Your task to perform on an android device: Go to display settings Image 0: 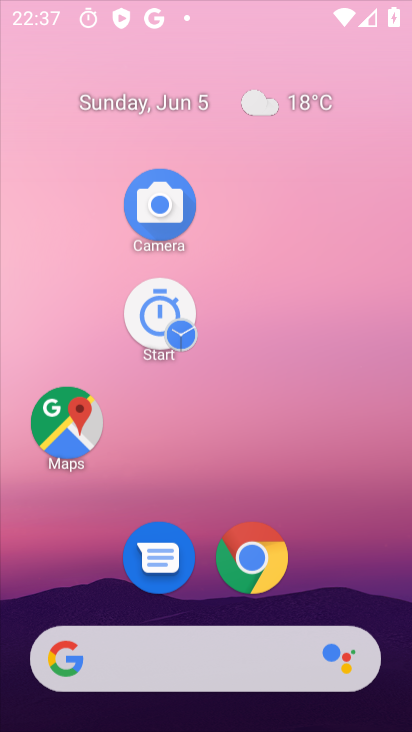
Step 0: drag from (270, 685) to (231, 96)
Your task to perform on an android device: Go to display settings Image 1: 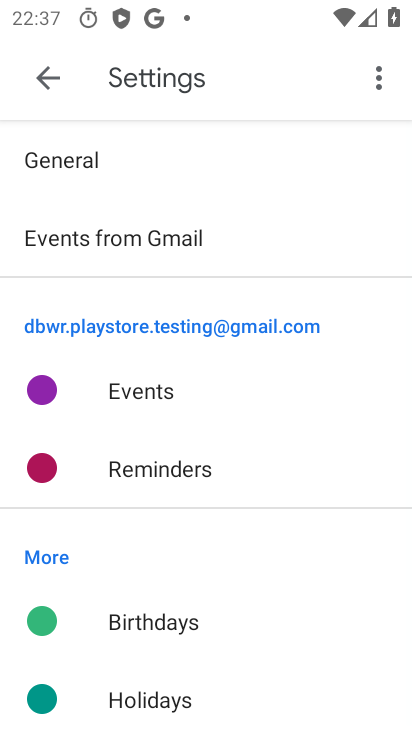
Step 1: click (43, 82)
Your task to perform on an android device: Go to display settings Image 2: 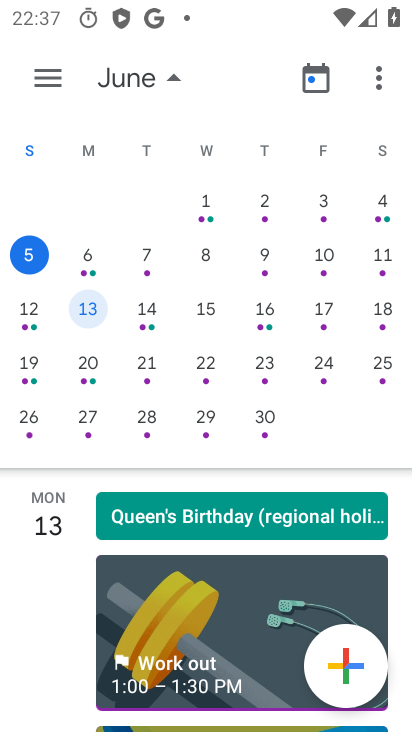
Step 2: press back button
Your task to perform on an android device: Go to display settings Image 3: 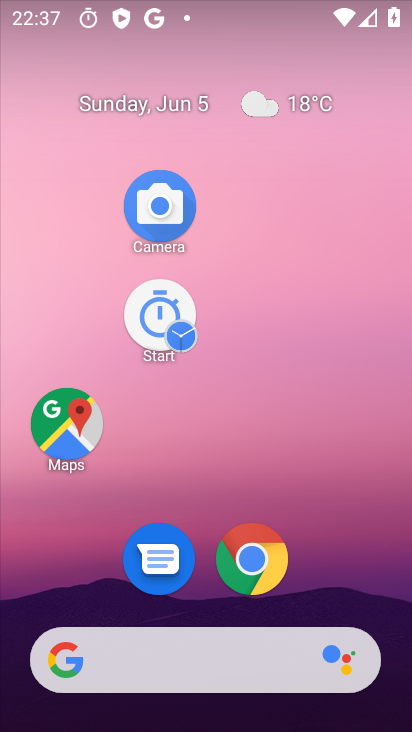
Step 3: drag from (199, 677) to (164, 35)
Your task to perform on an android device: Go to display settings Image 4: 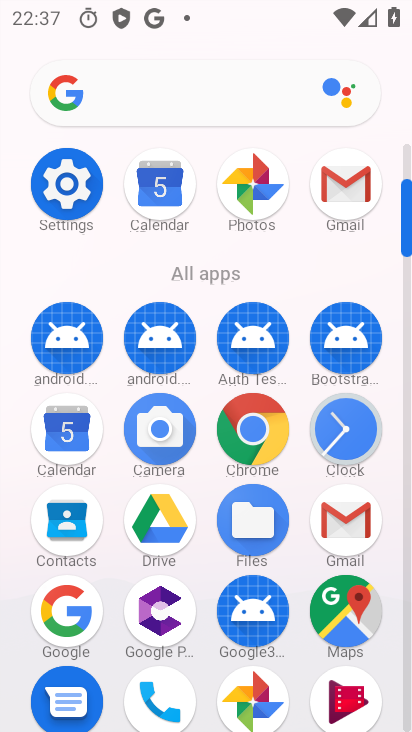
Step 4: click (54, 187)
Your task to perform on an android device: Go to display settings Image 5: 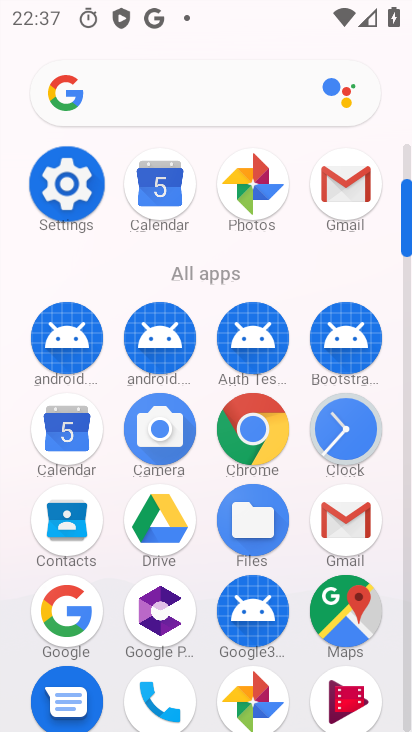
Step 5: click (54, 190)
Your task to perform on an android device: Go to display settings Image 6: 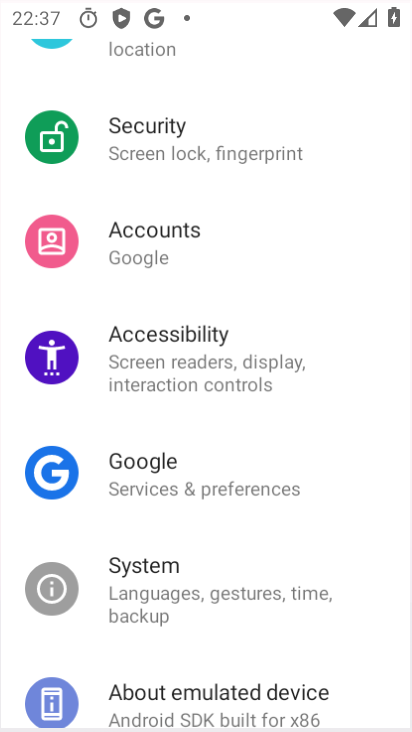
Step 6: click (62, 192)
Your task to perform on an android device: Go to display settings Image 7: 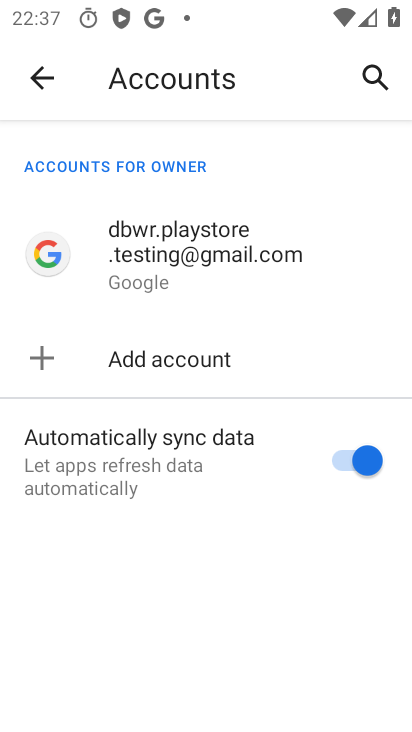
Step 7: click (41, 75)
Your task to perform on an android device: Go to display settings Image 8: 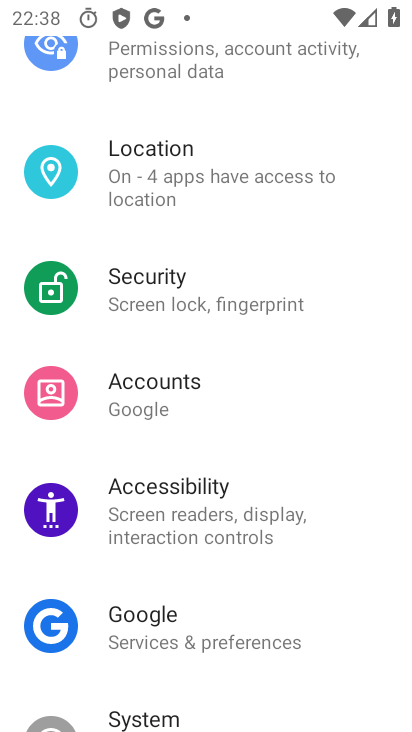
Step 8: drag from (168, 182) to (167, 427)
Your task to perform on an android device: Go to display settings Image 9: 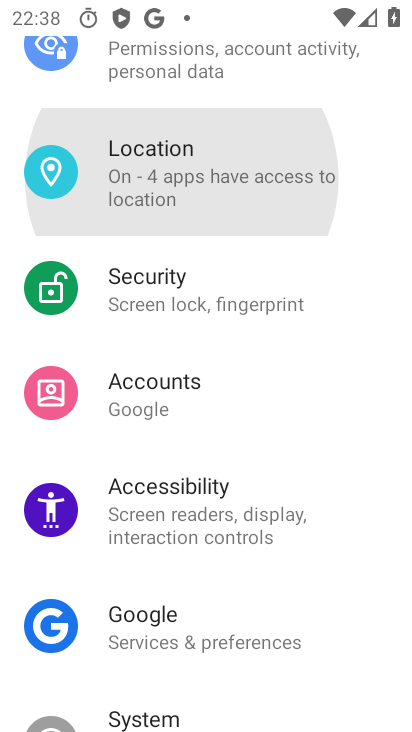
Step 9: drag from (114, 103) to (127, 375)
Your task to perform on an android device: Go to display settings Image 10: 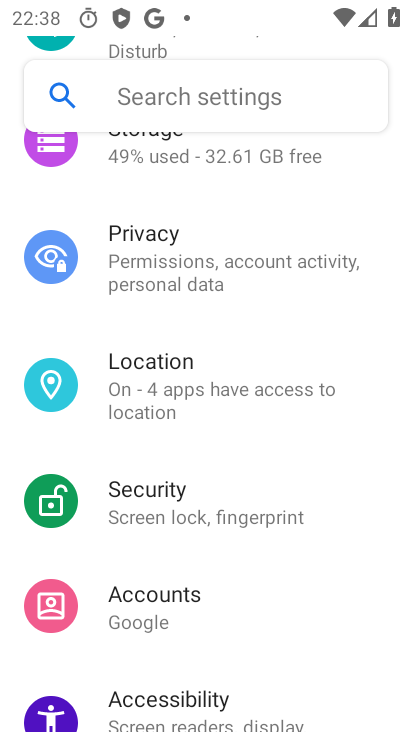
Step 10: drag from (160, 247) to (122, 529)
Your task to perform on an android device: Go to display settings Image 11: 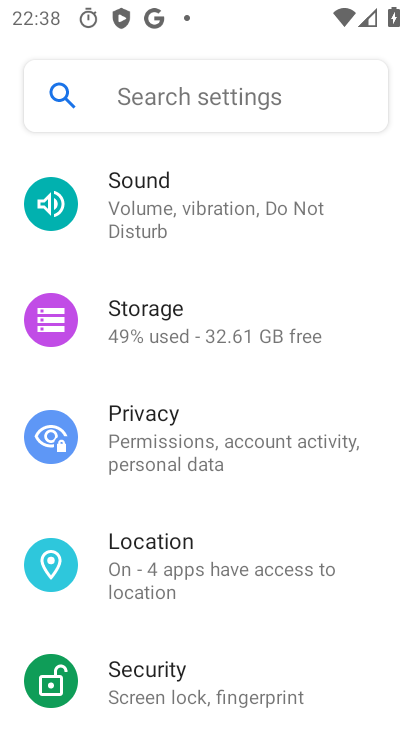
Step 11: drag from (164, 370) to (142, 638)
Your task to perform on an android device: Go to display settings Image 12: 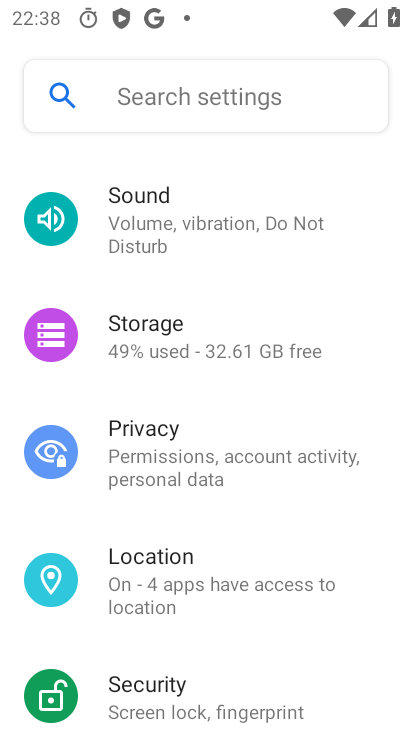
Step 12: drag from (180, 333) to (167, 595)
Your task to perform on an android device: Go to display settings Image 13: 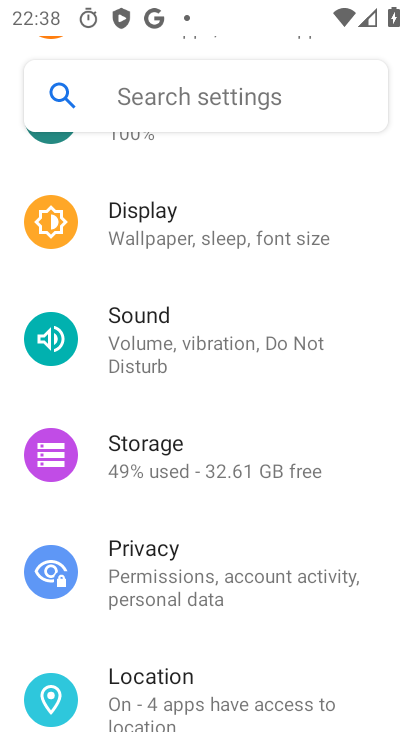
Step 13: drag from (207, 432) to (215, 484)
Your task to perform on an android device: Go to display settings Image 14: 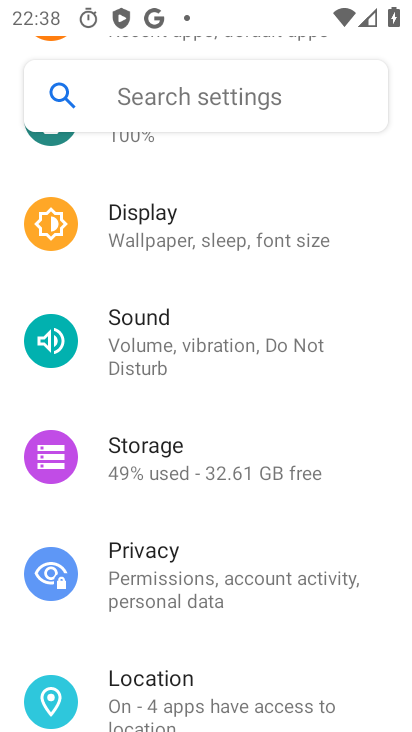
Step 14: click (152, 218)
Your task to perform on an android device: Go to display settings Image 15: 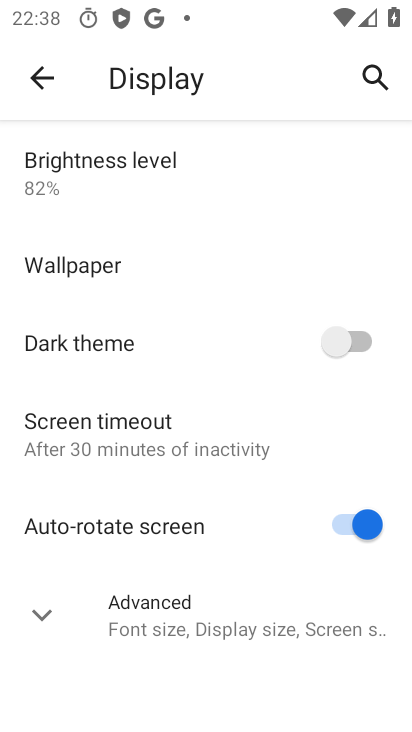
Step 15: task complete